Your task to perform on an android device: Open the map Image 0: 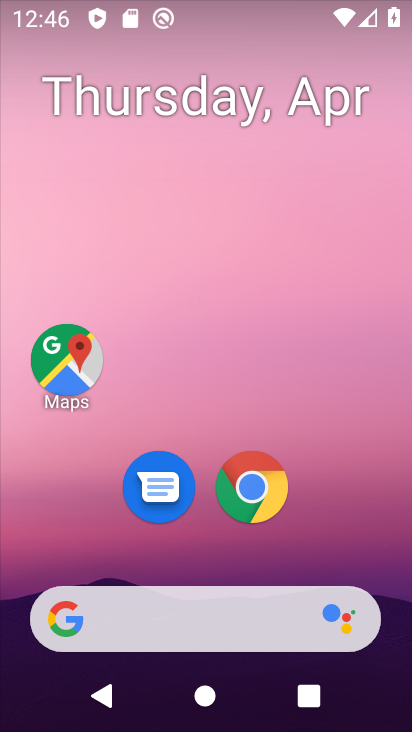
Step 0: drag from (361, 559) to (341, 42)
Your task to perform on an android device: Open the map Image 1: 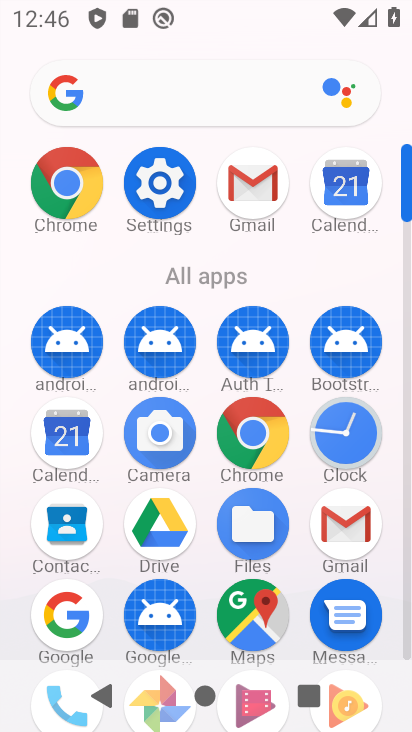
Step 1: click (256, 627)
Your task to perform on an android device: Open the map Image 2: 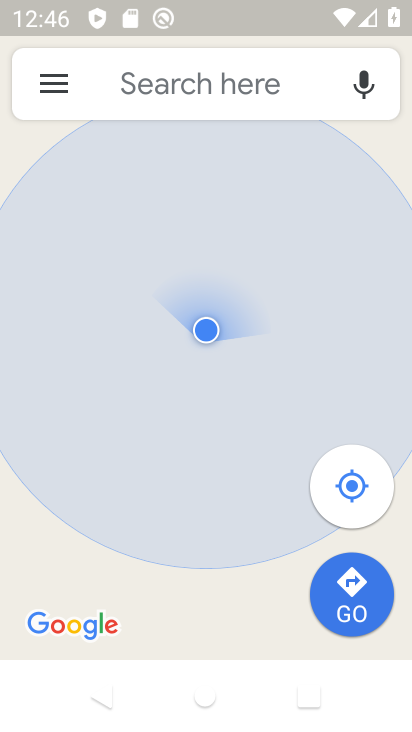
Step 2: click (158, 90)
Your task to perform on an android device: Open the map Image 3: 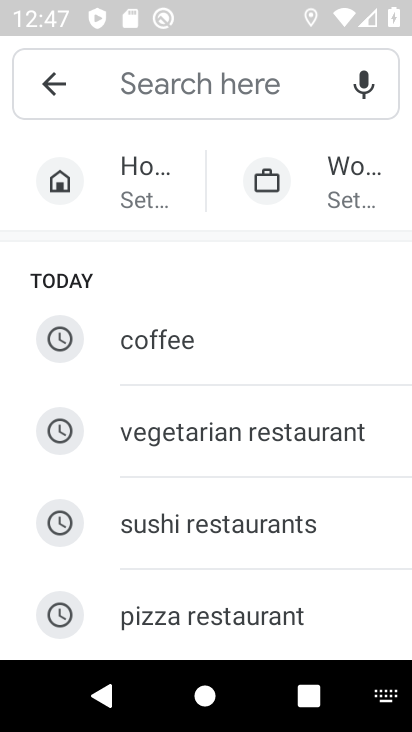
Step 3: click (60, 85)
Your task to perform on an android device: Open the map Image 4: 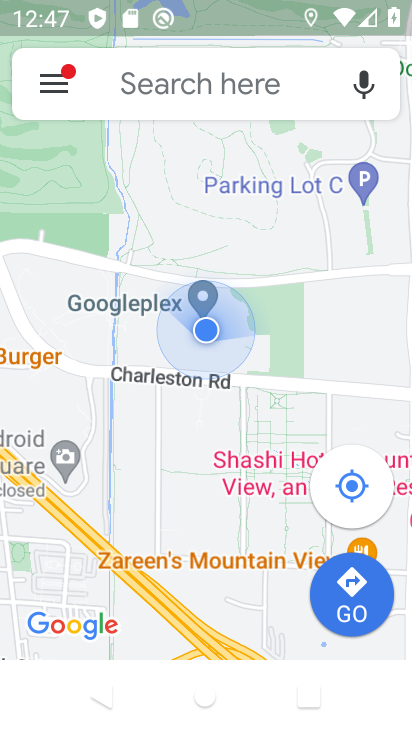
Step 4: task complete